Your task to perform on an android device: Go to eBay Image 0: 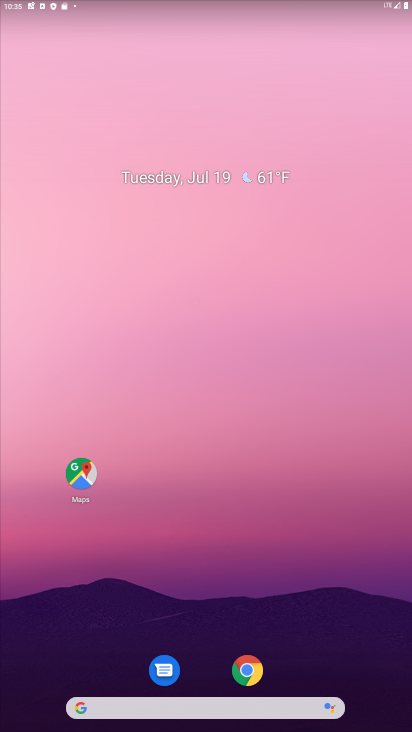
Step 0: click (187, 714)
Your task to perform on an android device: Go to eBay Image 1: 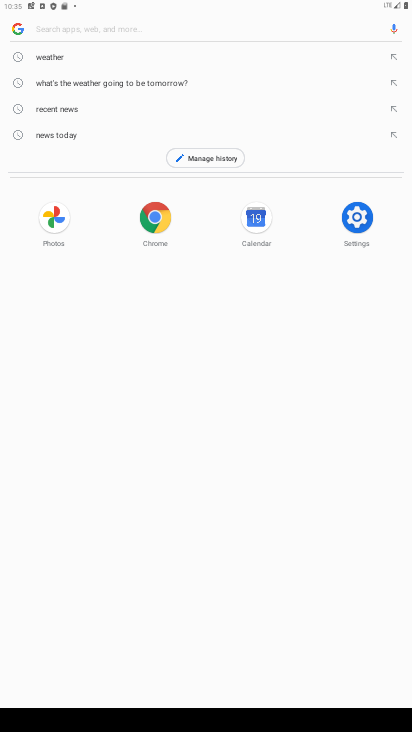
Step 1: type "ebay"
Your task to perform on an android device: Go to eBay Image 2: 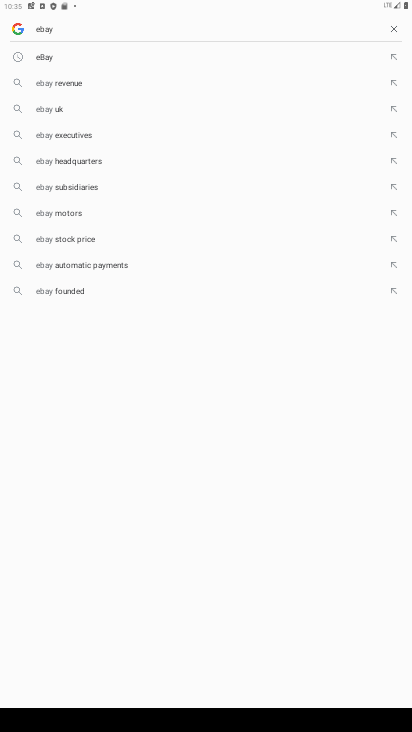
Step 2: click (139, 56)
Your task to perform on an android device: Go to eBay Image 3: 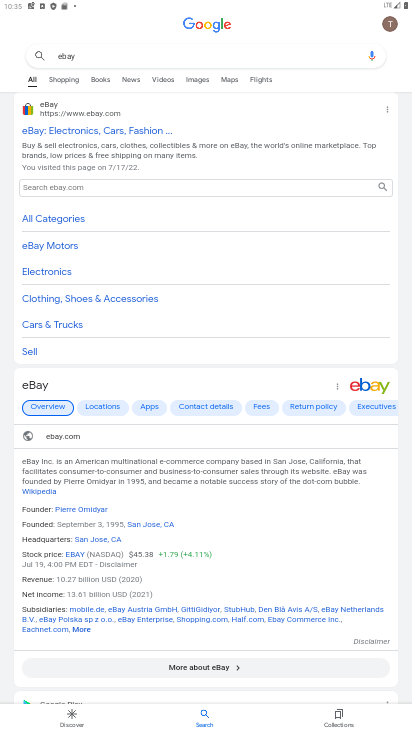
Step 3: click (72, 113)
Your task to perform on an android device: Go to eBay Image 4: 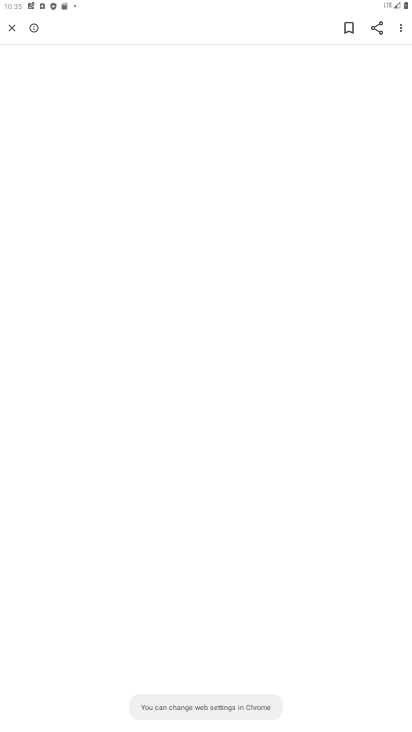
Step 4: click (71, 125)
Your task to perform on an android device: Go to eBay Image 5: 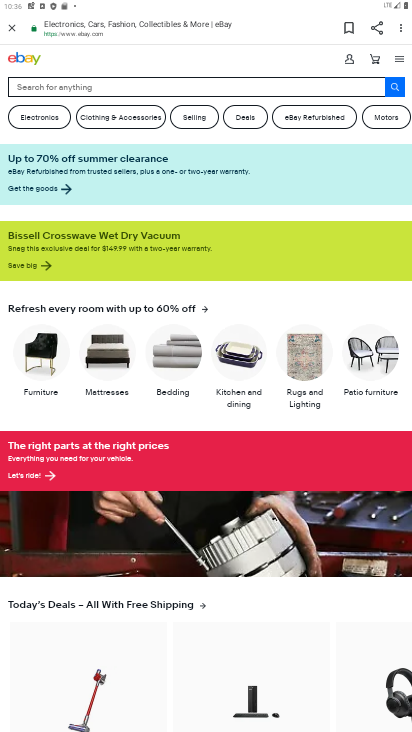
Step 5: task complete